Your task to perform on an android device: toggle sleep mode Image 0: 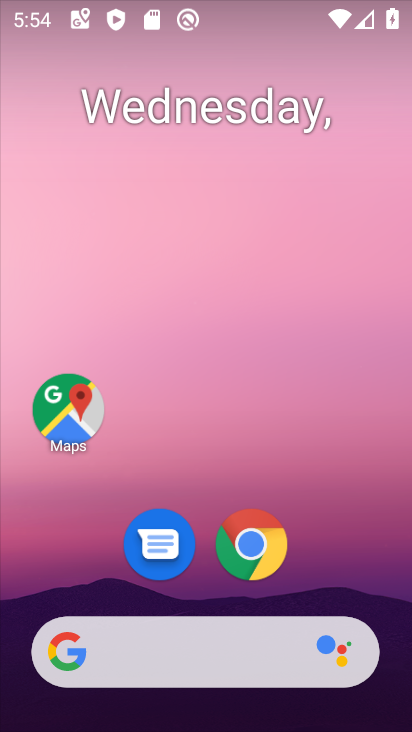
Step 0: drag from (222, 480) to (216, 7)
Your task to perform on an android device: toggle sleep mode Image 1: 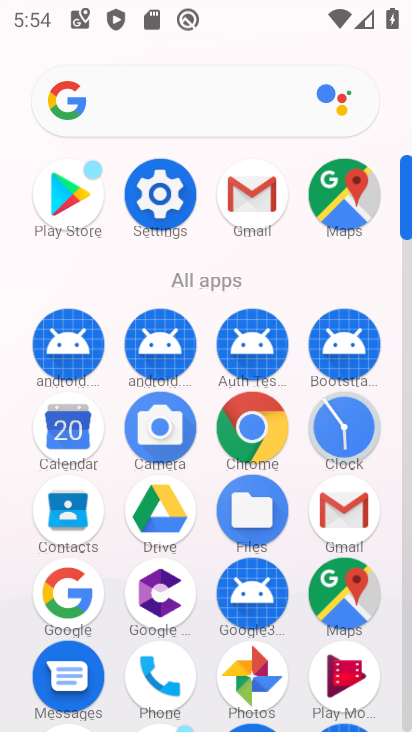
Step 1: click (164, 211)
Your task to perform on an android device: toggle sleep mode Image 2: 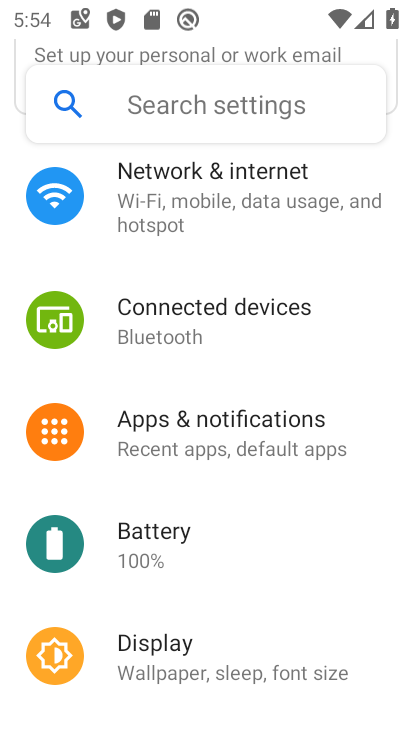
Step 2: click (216, 673)
Your task to perform on an android device: toggle sleep mode Image 3: 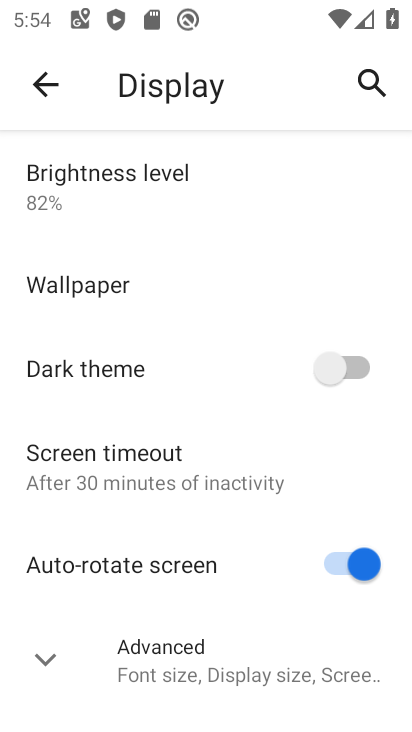
Step 3: task complete